Your task to perform on an android device: Search for the best lawnmowers on Lowes.com Image 0: 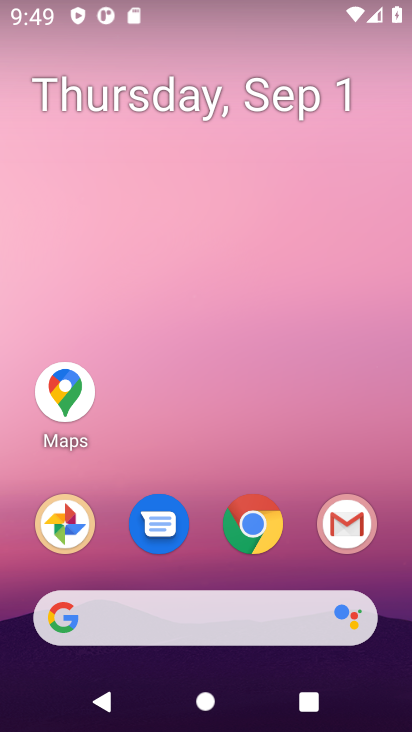
Step 0: drag from (396, 591) to (397, 101)
Your task to perform on an android device: Search for the best lawnmowers on Lowes.com Image 1: 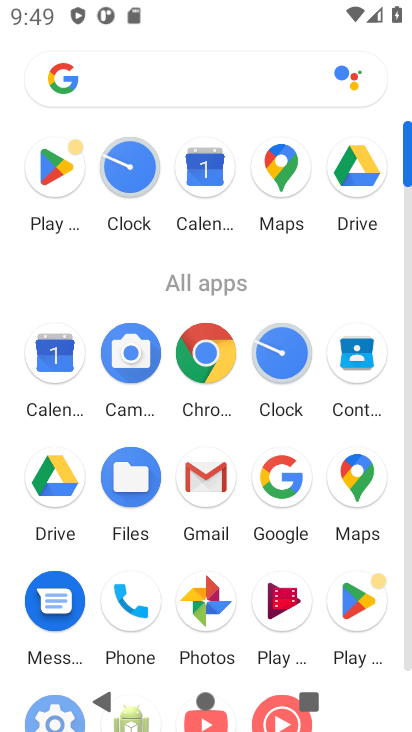
Step 1: click (205, 350)
Your task to perform on an android device: Search for the best lawnmowers on Lowes.com Image 2: 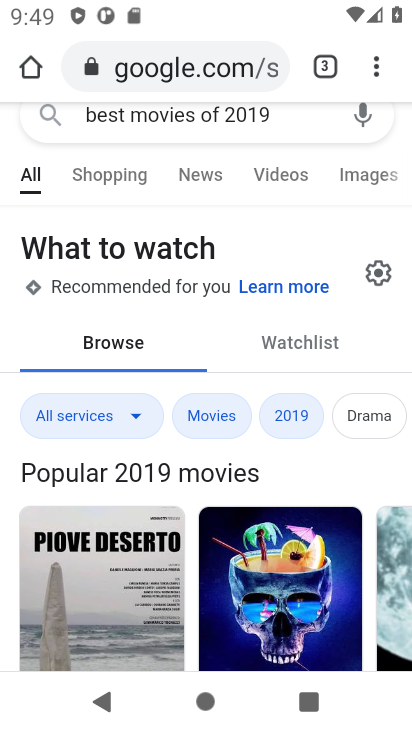
Step 2: press back button
Your task to perform on an android device: Search for the best lawnmowers on Lowes.com Image 3: 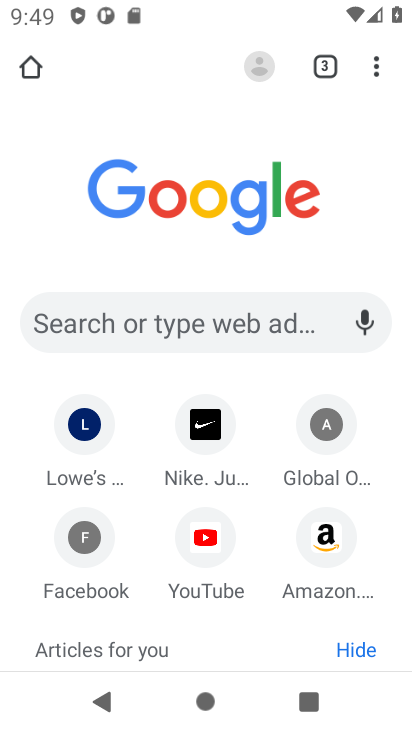
Step 3: click (251, 320)
Your task to perform on an android device: Search for the best lawnmowers on Lowes.com Image 4: 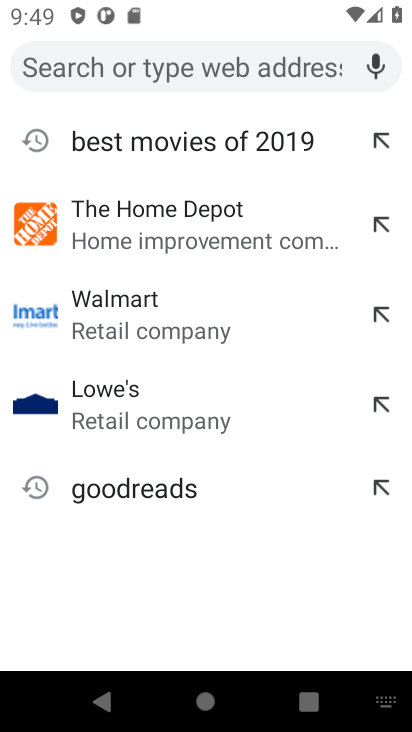
Step 4: type "lowes.com"
Your task to perform on an android device: Search for the best lawnmowers on Lowes.com Image 5: 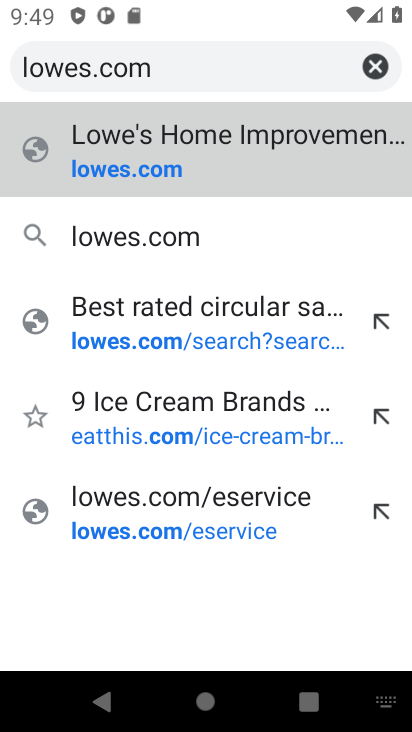
Step 5: press enter
Your task to perform on an android device: Search for the best lawnmowers on Lowes.com Image 6: 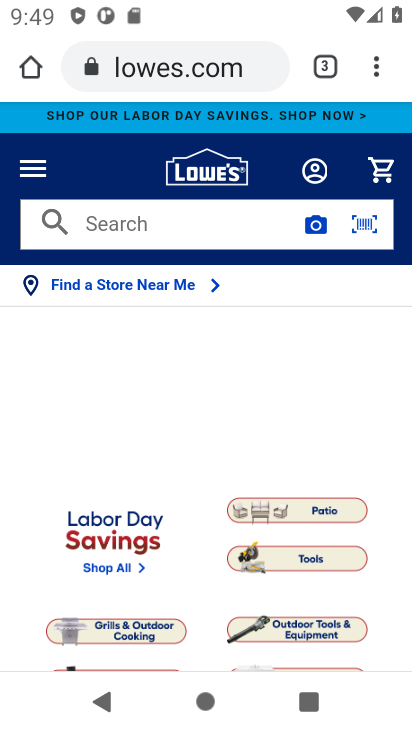
Step 6: click (182, 213)
Your task to perform on an android device: Search for the best lawnmowers on Lowes.com Image 7: 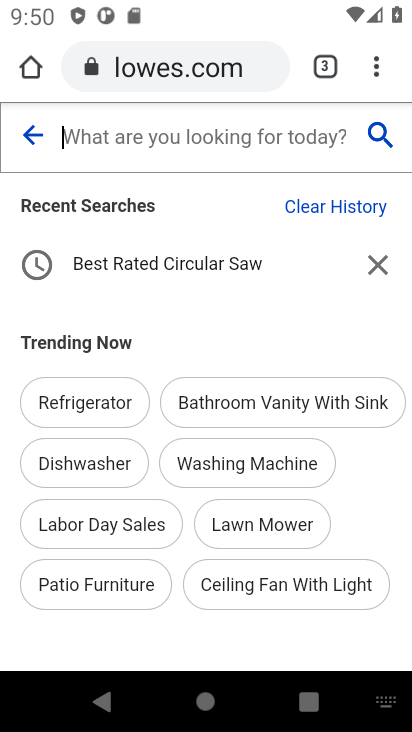
Step 7: press enter
Your task to perform on an android device: Search for the best lawnmowers on Lowes.com Image 8: 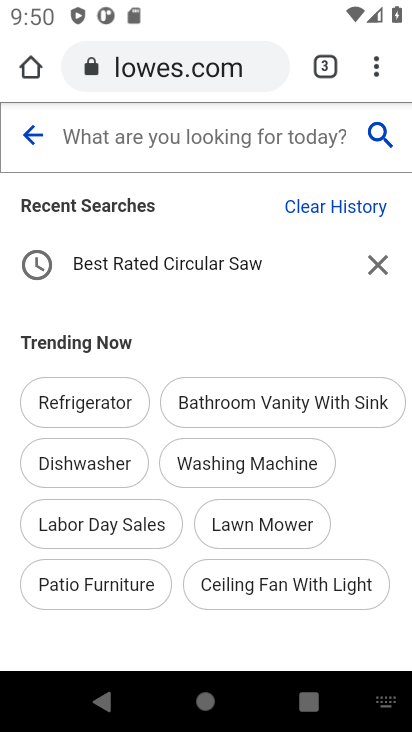
Step 8: type " best lawnmowers"
Your task to perform on an android device: Search for the best lawnmowers on Lowes.com Image 9: 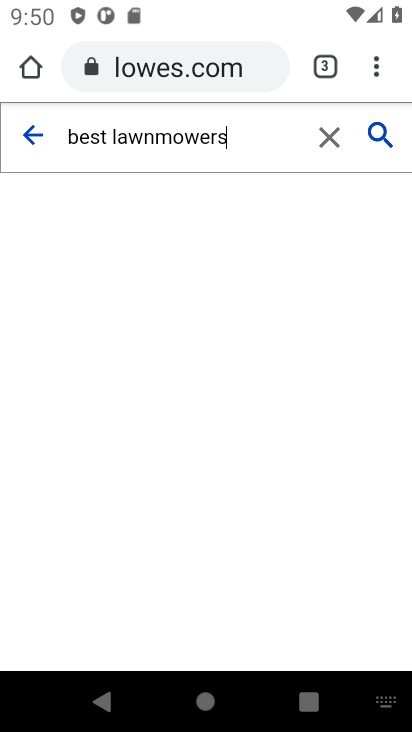
Step 9: click (370, 124)
Your task to perform on an android device: Search for the best lawnmowers on Lowes.com Image 10: 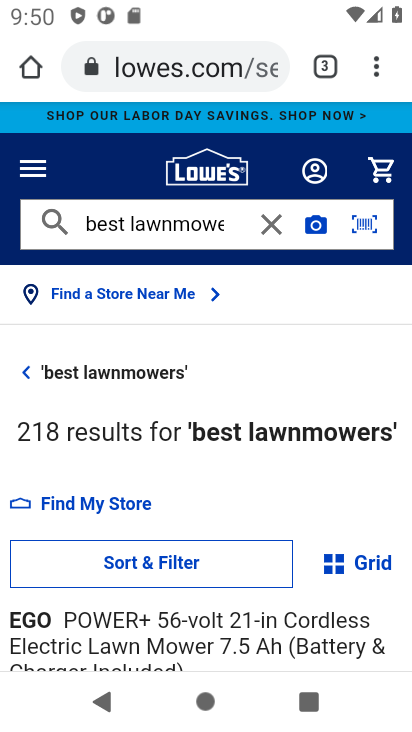
Step 10: task complete